Your task to perform on an android device: change notification settings in the gmail app Image 0: 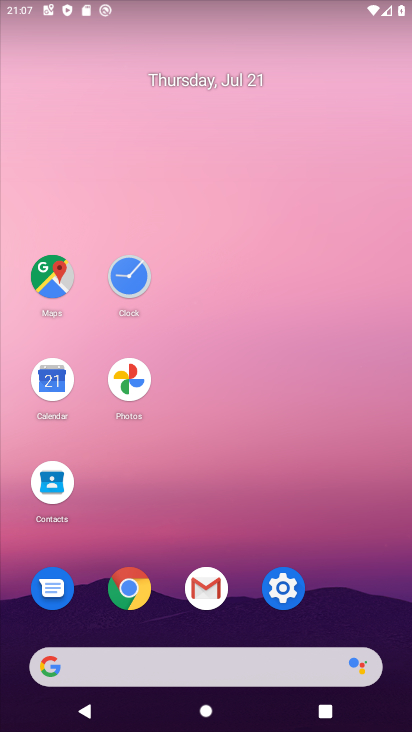
Step 0: click (204, 584)
Your task to perform on an android device: change notification settings in the gmail app Image 1: 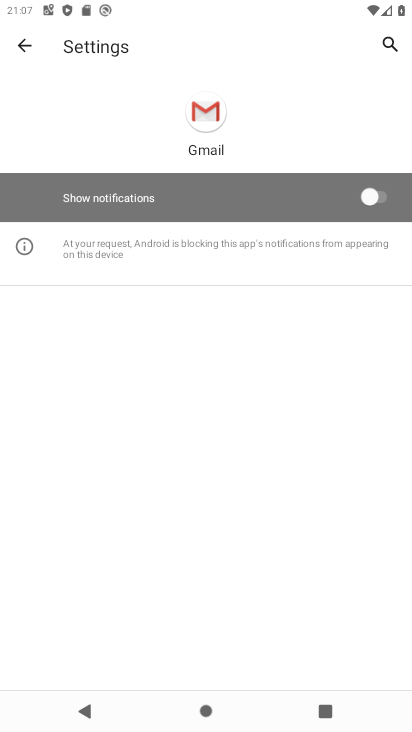
Step 1: click (372, 199)
Your task to perform on an android device: change notification settings in the gmail app Image 2: 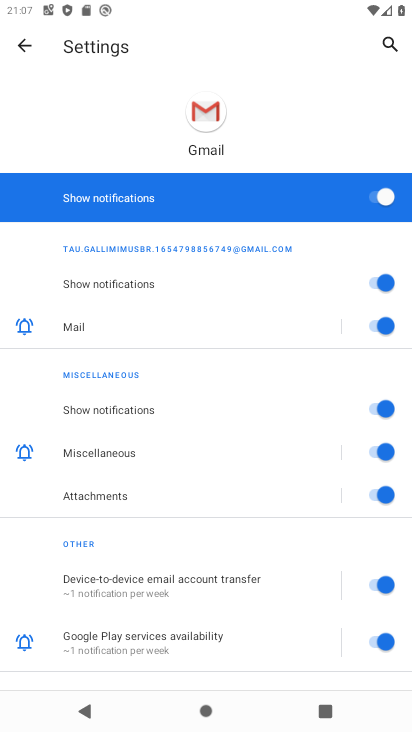
Step 2: task complete